Your task to perform on an android device: Go to calendar. Show me events next week Image 0: 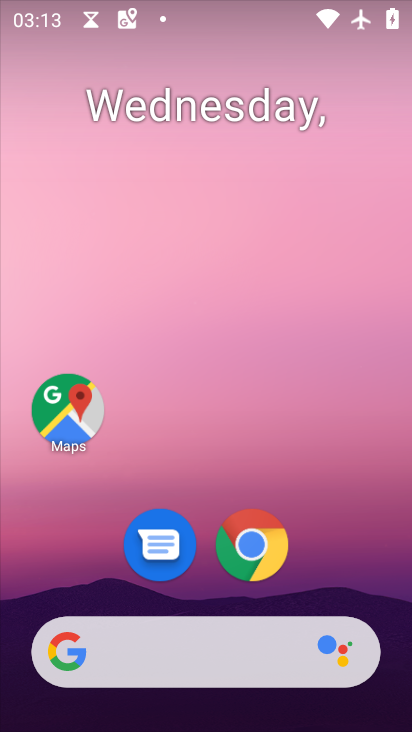
Step 0: press home button
Your task to perform on an android device: Go to calendar. Show me events next week Image 1: 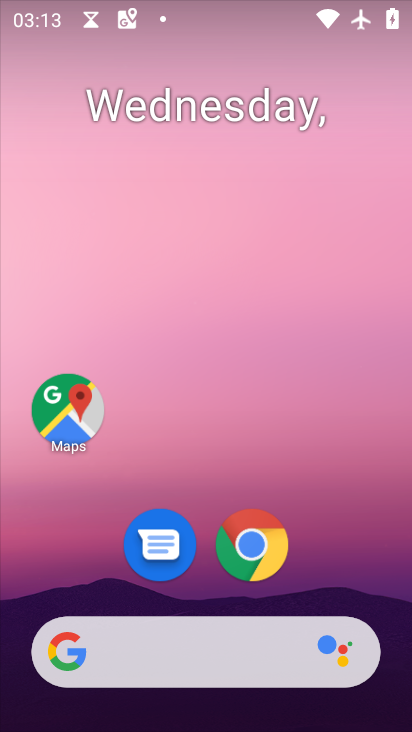
Step 1: drag from (179, 644) to (240, 158)
Your task to perform on an android device: Go to calendar. Show me events next week Image 2: 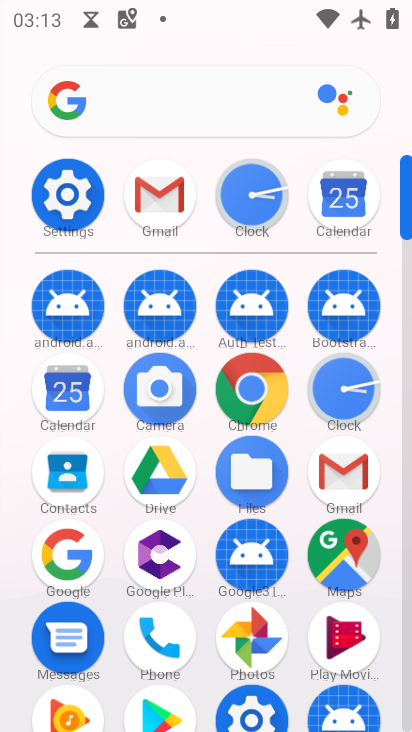
Step 2: click (64, 398)
Your task to perform on an android device: Go to calendar. Show me events next week Image 3: 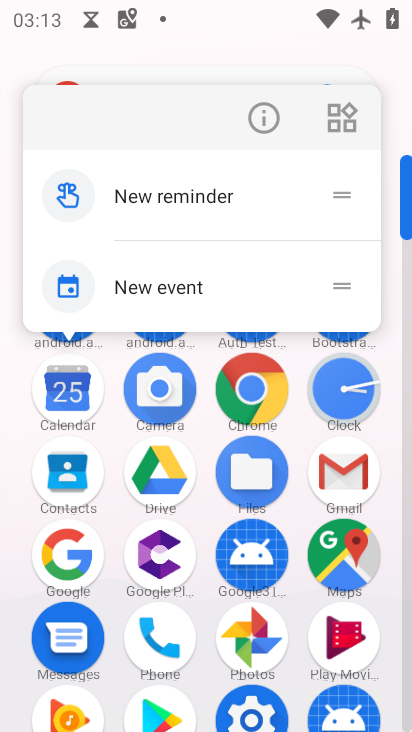
Step 3: click (64, 398)
Your task to perform on an android device: Go to calendar. Show me events next week Image 4: 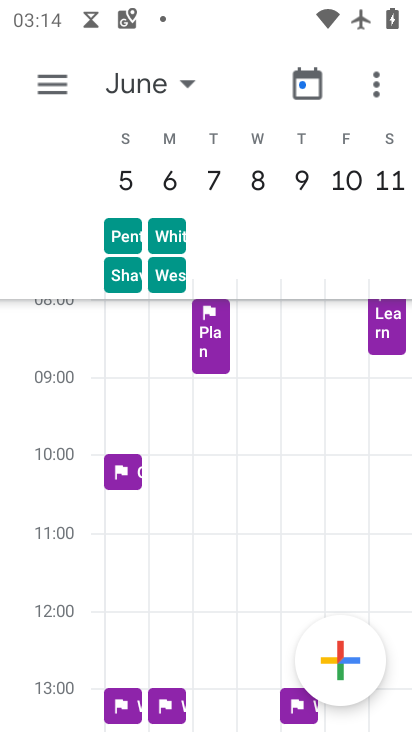
Step 4: click (135, 73)
Your task to perform on an android device: Go to calendar. Show me events next week Image 5: 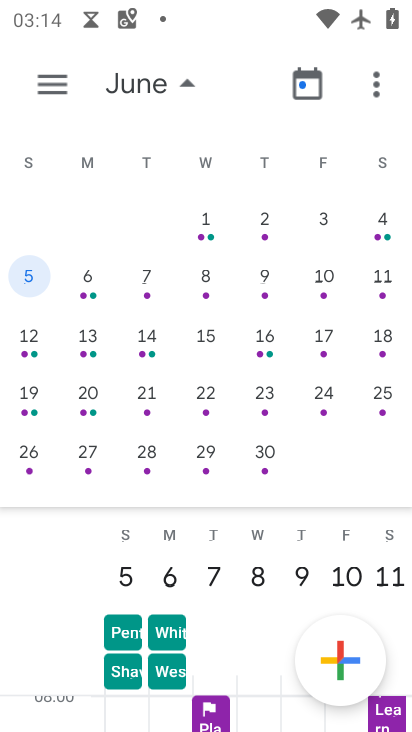
Step 5: drag from (92, 369) to (410, 356)
Your task to perform on an android device: Go to calendar. Show me events next week Image 6: 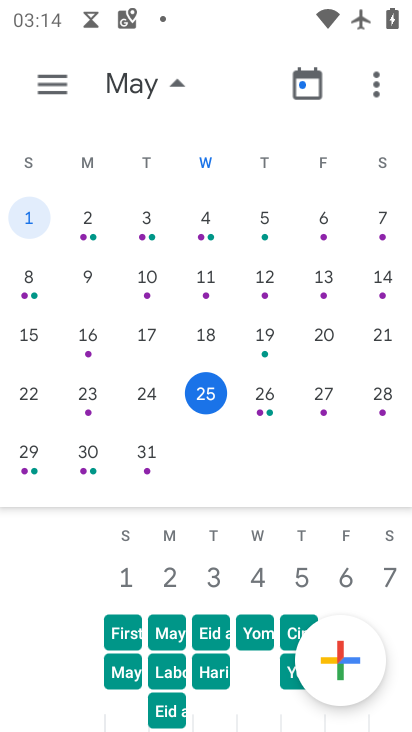
Step 6: click (28, 465)
Your task to perform on an android device: Go to calendar. Show me events next week Image 7: 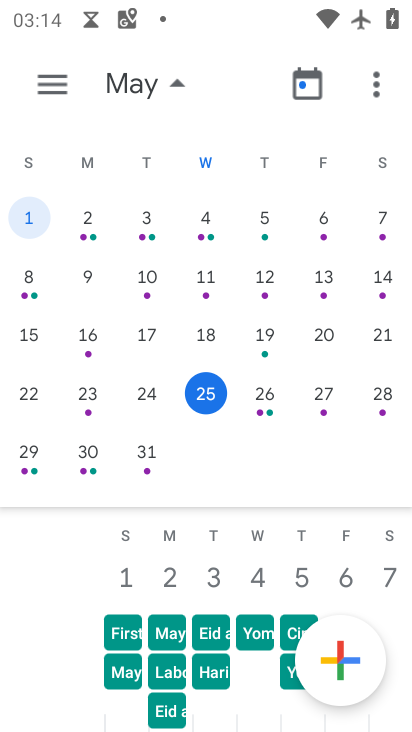
Step 7: click (36, 458)
Your task to perform on an android device: Go to calendar. Show me events next week Image 8: 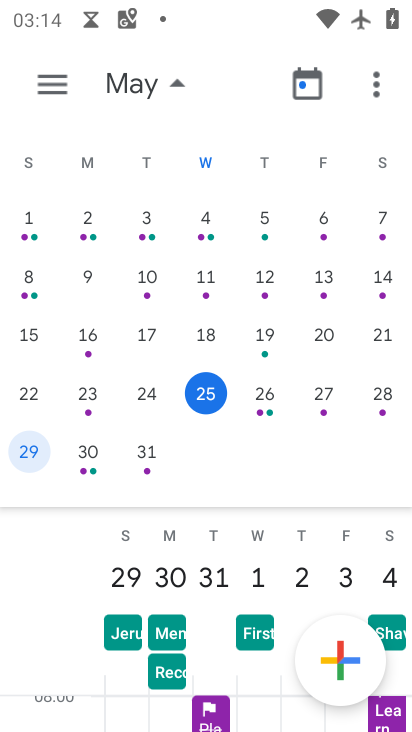
Step 8: click (61, 85)
Your task to perform on an android device: Go to calendar. Show me events next week Image 9: 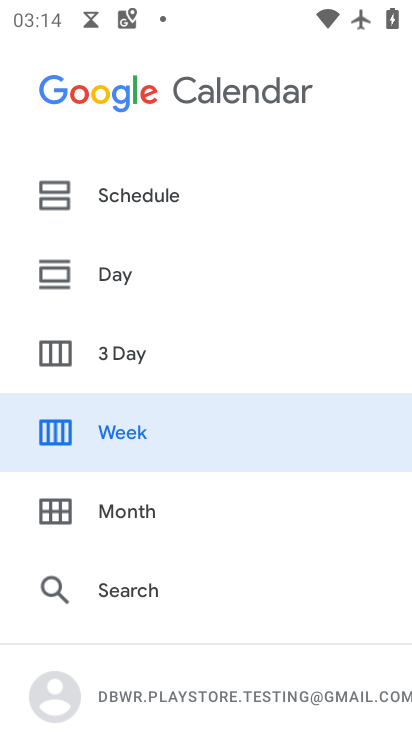
Step 9: click (151, 200)
Your task to perform on an android device: Go to calendar. Show me events next week Image 10: 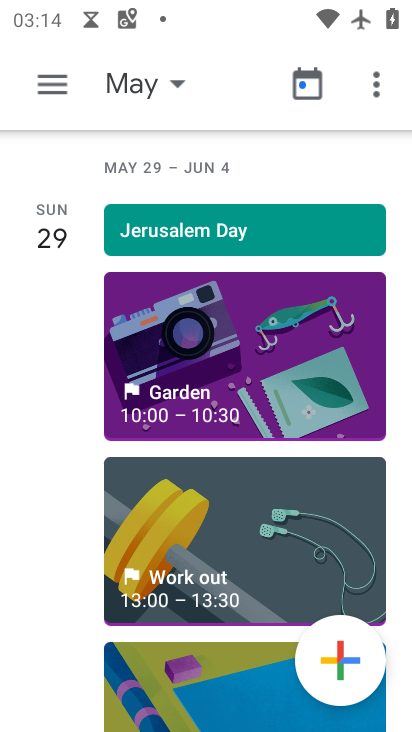
Step 10: click (205, 360)
Your task to perform on an android device: Go to calendar. Show me events next week Image 11: 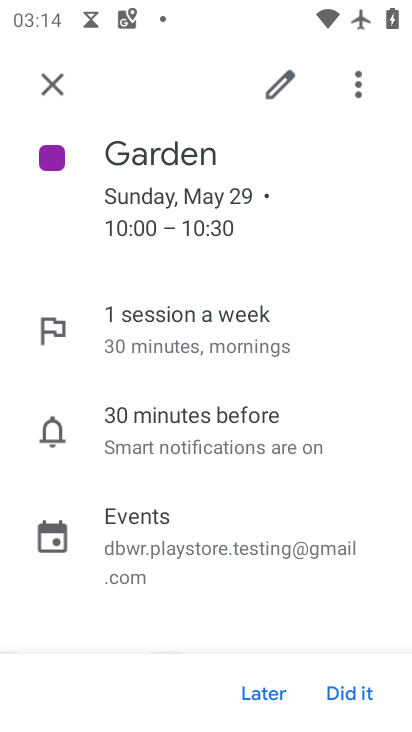
Step 11: task complete